Your task to perform on an android device: Check the news Image 0: 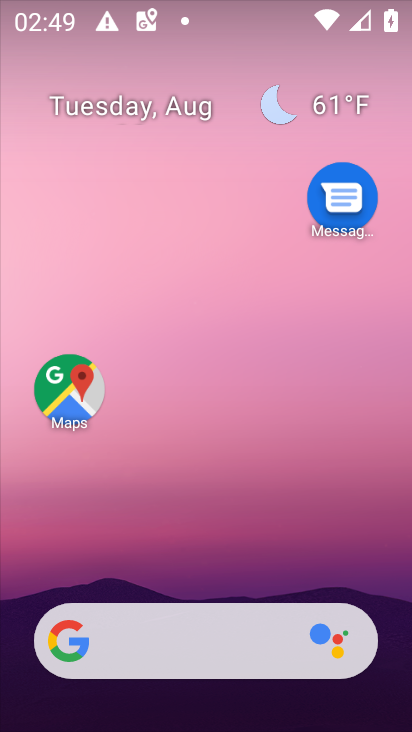
Step 0: click (200, 632)
Your task to perform on an android device: Check the news Image 1: 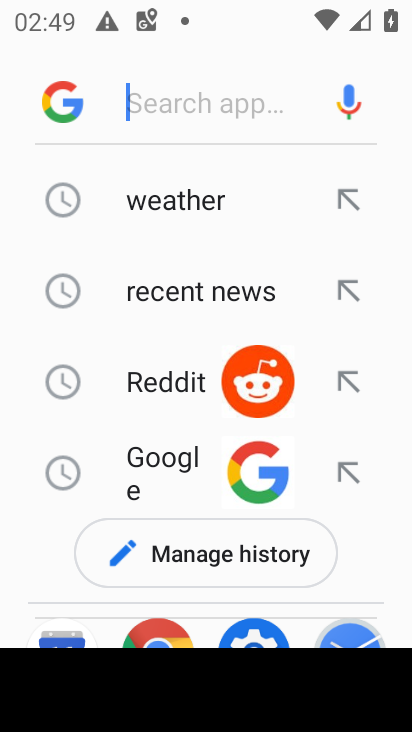
Step 1: click (177, 295)
Your task to perform on an android device: Check the news Image 2: 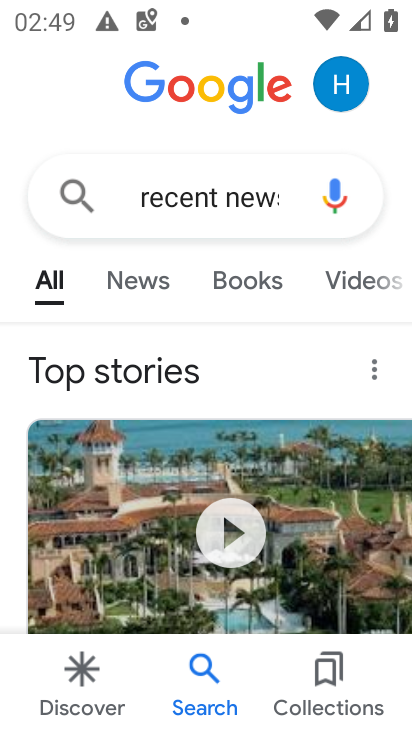
Step 2: task complete